Your task to perform on an android device: open sync settings in chrome Image 0: 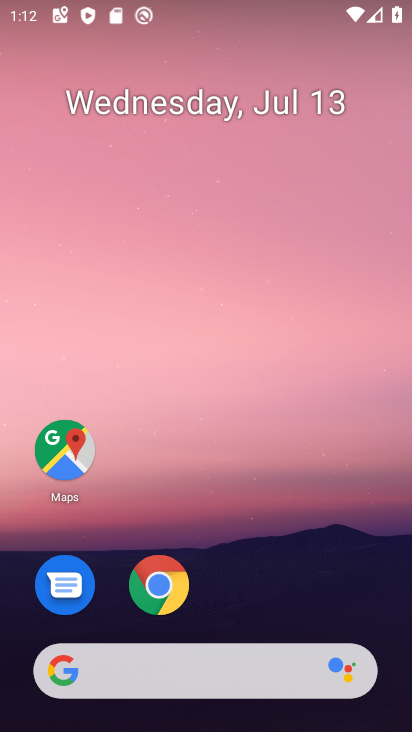
Step 0: click (159, 587)
Your task to perform on an android device: open sync settings in chrome Image 1: 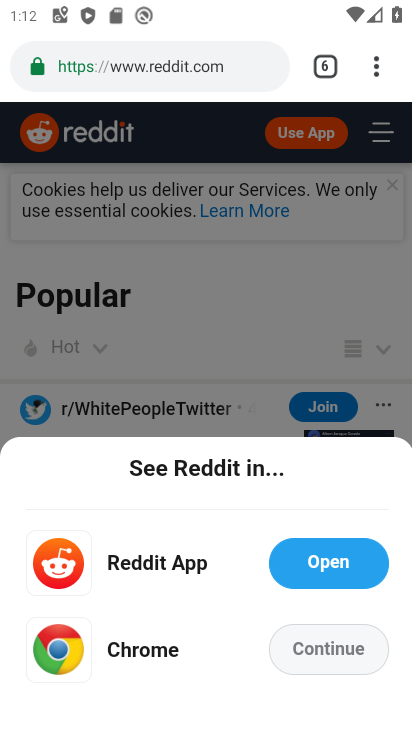
Step 1: drag from (374, 67) to (178, 591)
Your task to perform on an android device: open sync settings in chrome Image 2: 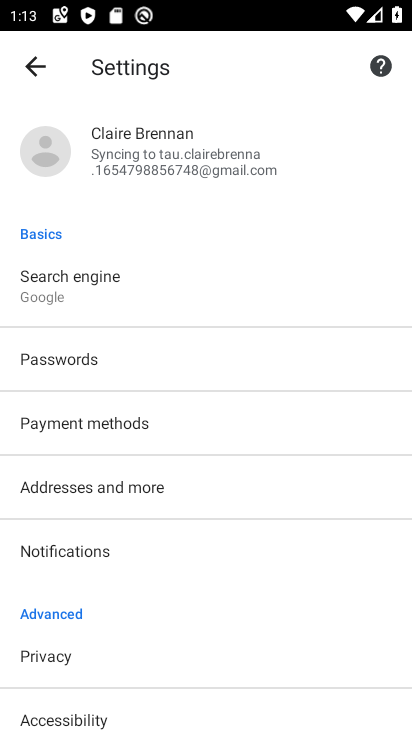
Step 2: click (227, 135)
Your task to perform on an android device: open sync settings in chrome Image 3: 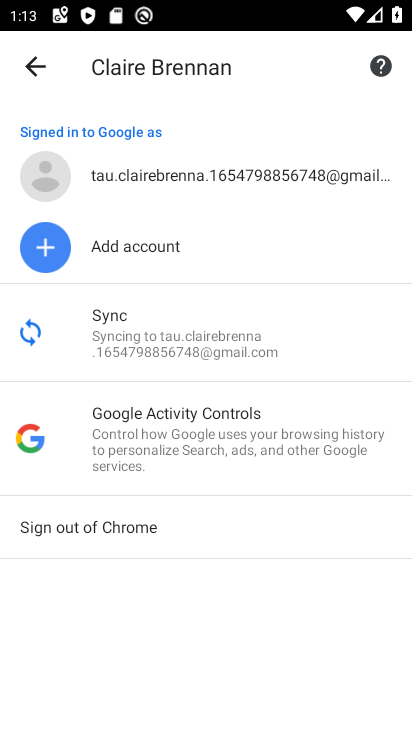
Step 3: click (159, 322)
Your task to perform on an android device: open sync settings in chrome Image 4: 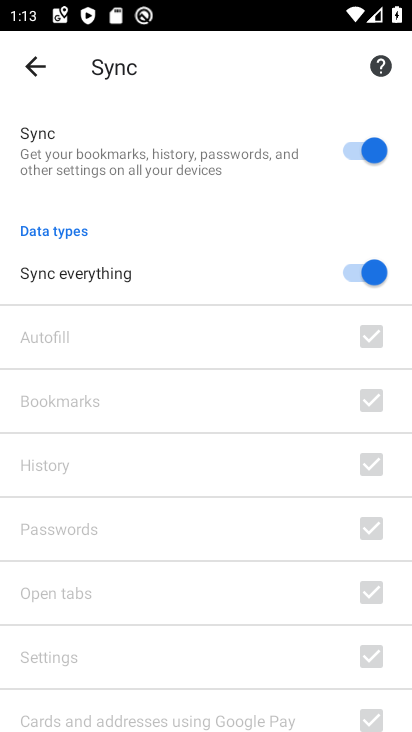
Step 4: task complete